Your task to perform on an android device: allow cookies in the chrome app Image 0: 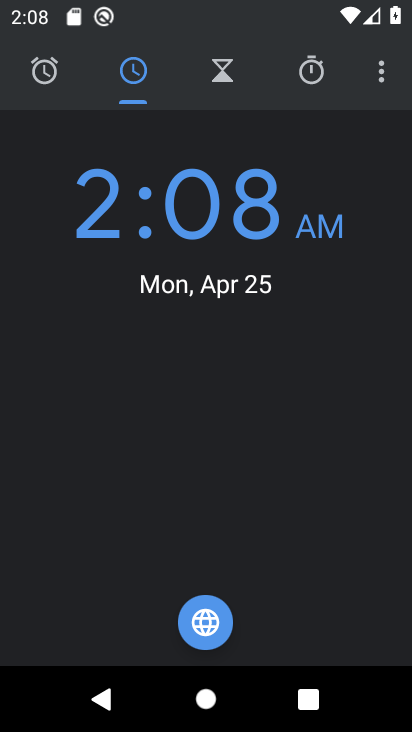
Step 0: press home button
Your task to perform on an android device: allow cookies in the chrome app Image 1: 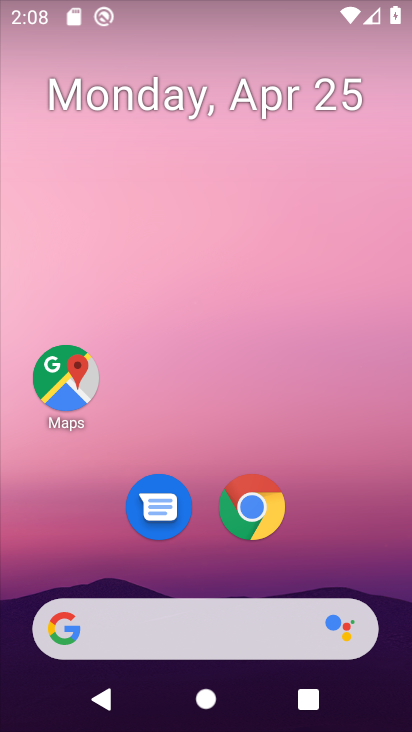
Step 1: drag from (121, 639) to (333, 71)
Your task to perform on an android device: allow cookies in the chrome app Image 2: 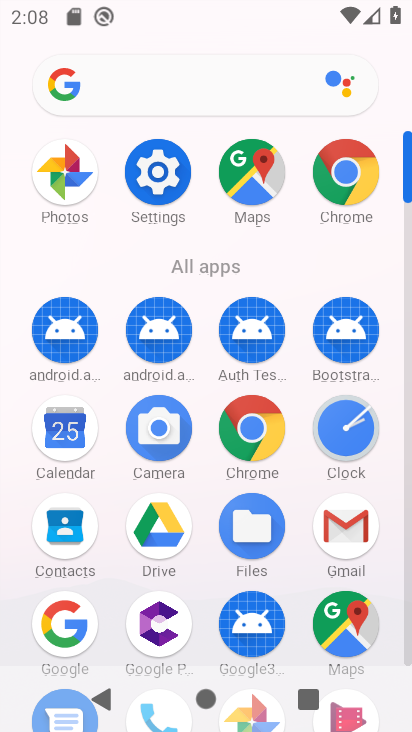
Step 2: click (357, 175)
Your task to perform on an android device: allow cookies in the chrome app Image 3: 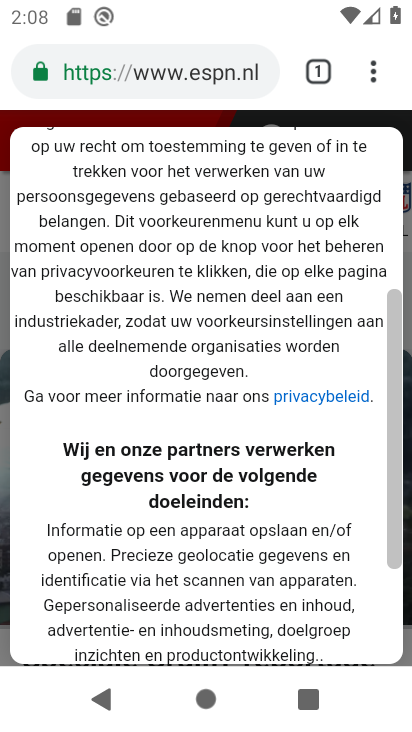
Step 3: drag from (374, 70) to (237, 515)
Your task to perform on an android device: allow cookies in the chrome app Image 4: 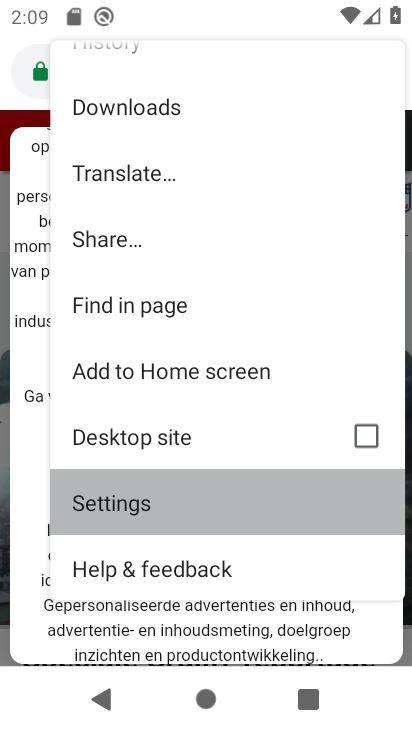
Step 4: click (237, 515)
Your task to perform on an android device: allow cookies in the chrome app Image 5: 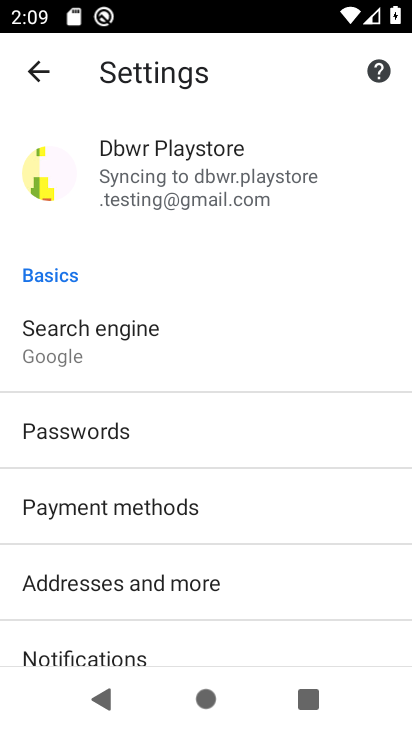
Step 5: drag from (159, 636) to (349, 251)
Your task to perform on an android device: allow cookies in the chrome app Image 6: 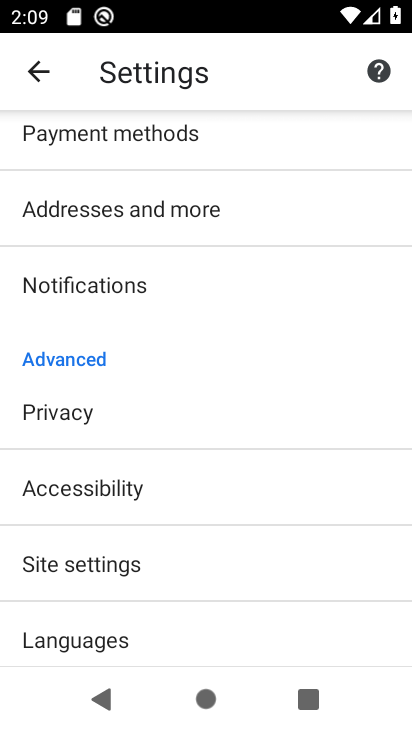
Step 6: click (141, 565)
Your task to perform on an android device: allow cookies in the chrome app Image 7: 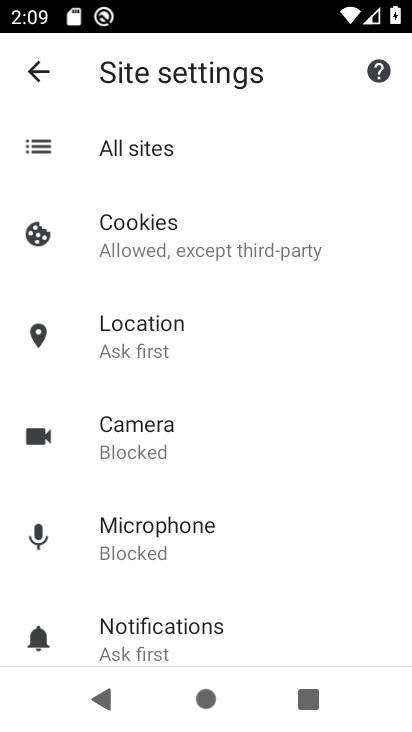
Step 7: click (141, 243)
Your task to perform on an android device: allow cookies in the chrome app Image 8: 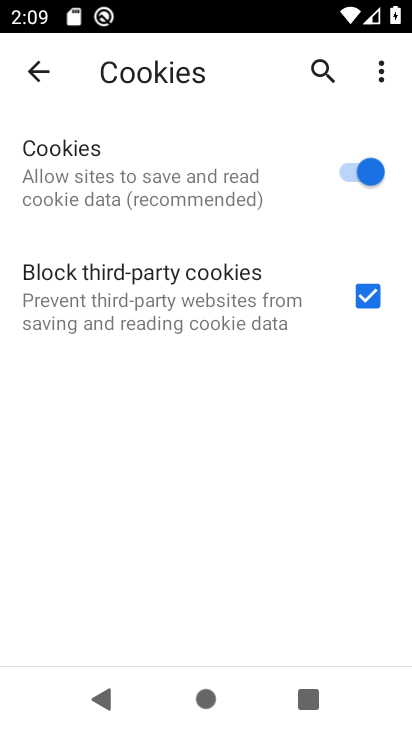
Step 8: task complete